Your task to perform on an android device: Turn on the flashlight Image 0: 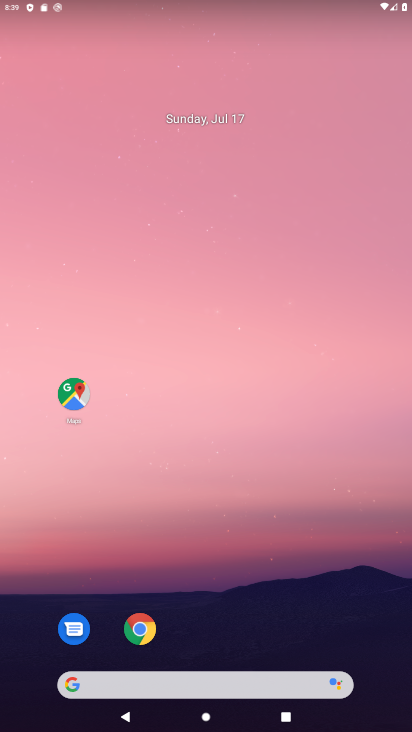
Step 0: drag from (283, 28) to (254, 722)
Your task to perform on an android device: Turn on the flashlight Image 1: 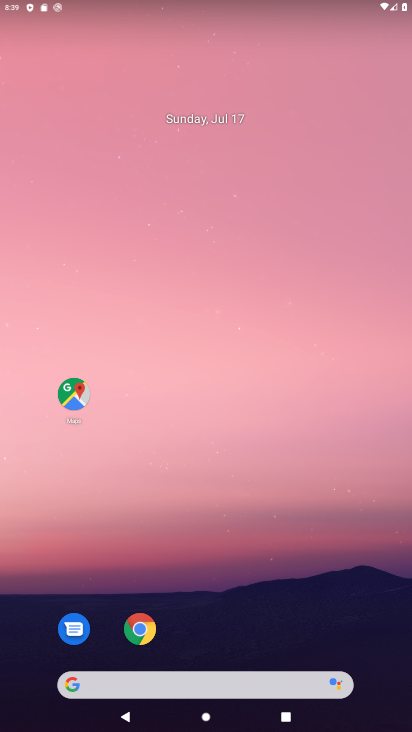
Step 1: task complete